Your task to perform on an android device: remove spam from my inbox in the gmail app Image 0: 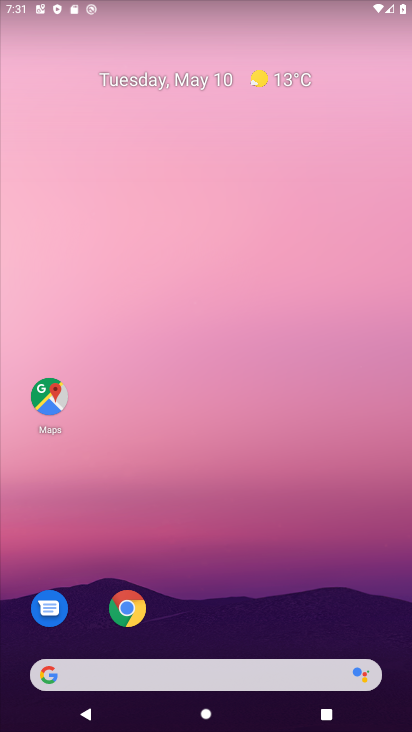
Step 0: drag from (226, 614) to (318, 169)
Your task to perform on an android device: remove spam from my inbox in the gmail app Image 1: 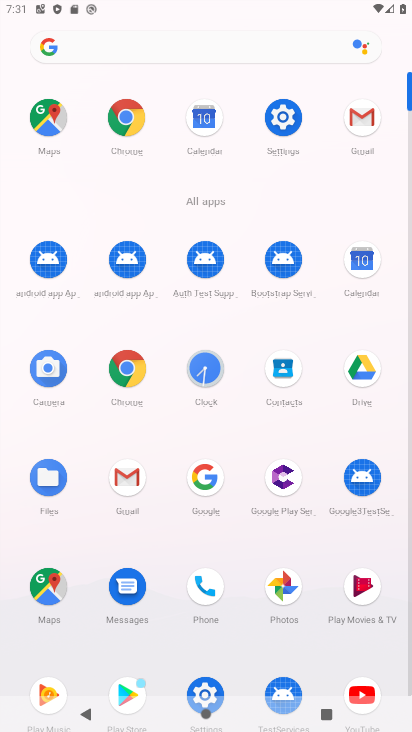
Step 1: drag from (231, 620) to (397, 286)
Your task to perform on an android device: remove spam from my inbox in the gmail app Image 2: 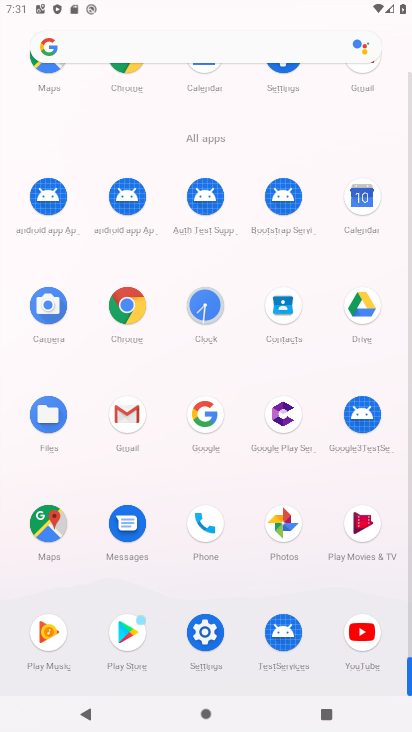
Step 2: click (128, 427)
Your task to perform on an android device: remove spam from my inbox in the gmail app Image 3: 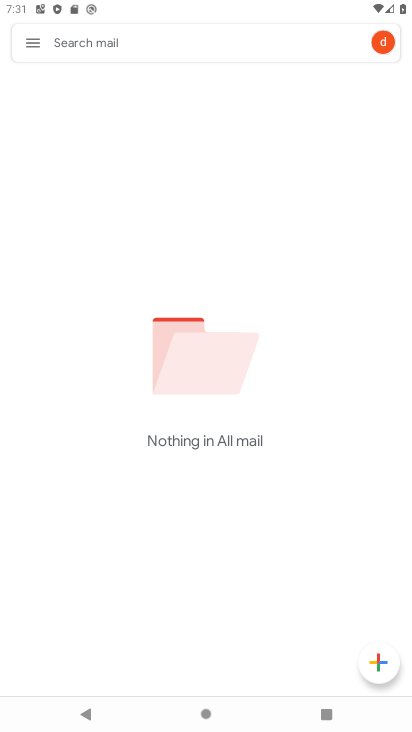
Step 3: click (33, 36)
Your task to perform on an android device: remove spam from my inbox in the gmail app Image 4: 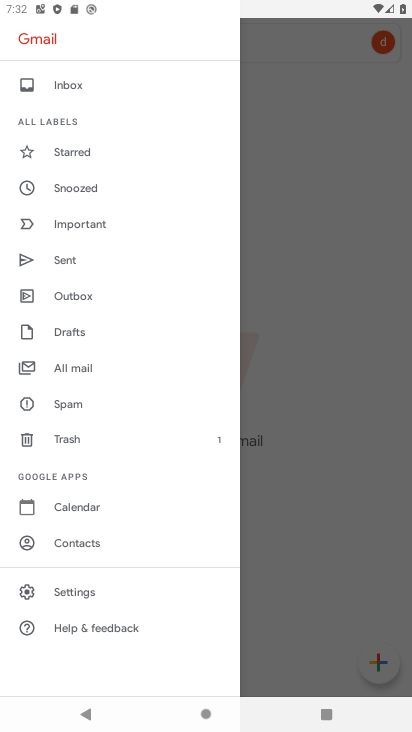
Step 4: click (72, 405)
Your task to perform on an android device: remove spam from my inbox in the gmail app Image 5: 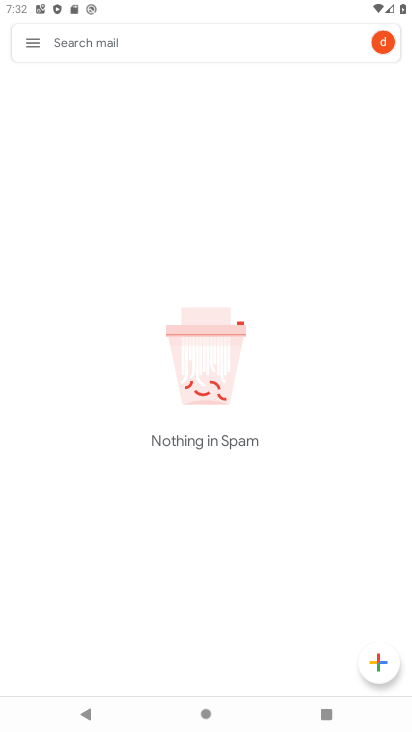
Step 5: task complete